Your task to perform on an android device: Open Wikipedia Image 0: 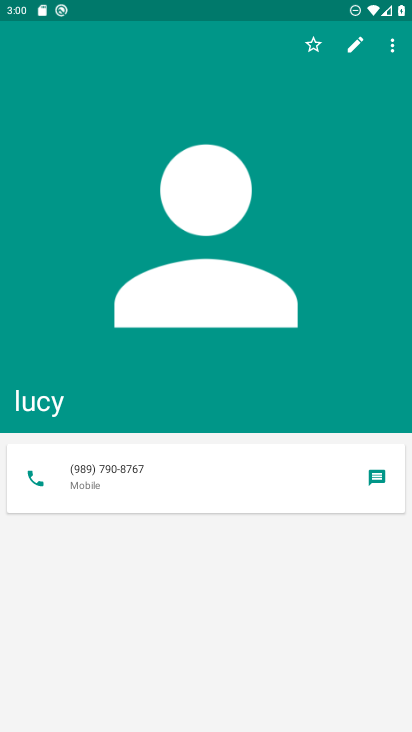
Step 0: press home button
Your task to perform on an android device: Open Wikipedia Image 1: 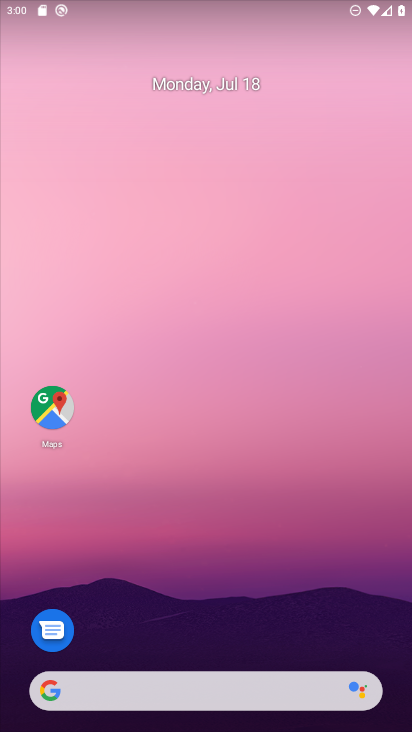
Step 1: drag from (380, 198) to (329, 5)
Your task to perform on an android device: Open Wikipedia Image 2: 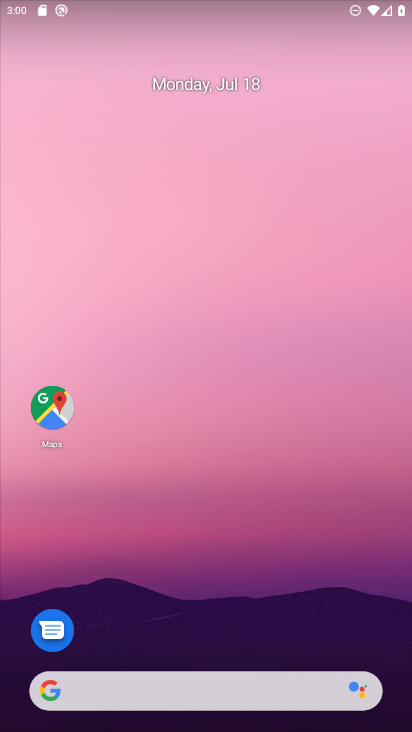
Step 2: drag from (222, 690) to (246, 2)
Your task to perform on an android device: Open Wikipedia Image 3: 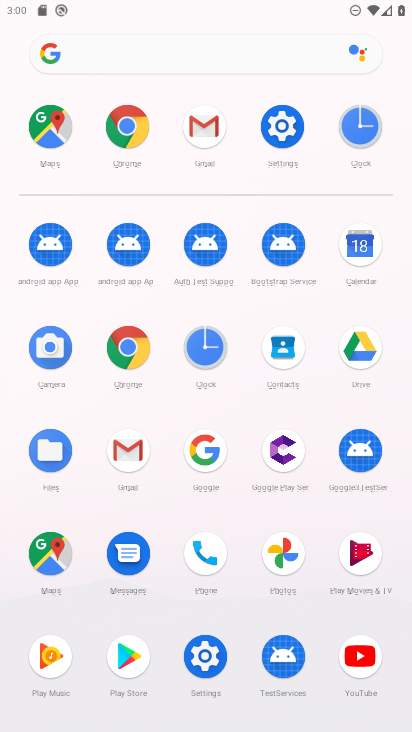
Step 3: click (133, 342)
Your task to perform on an android device: Open Wikipedia Image 4: 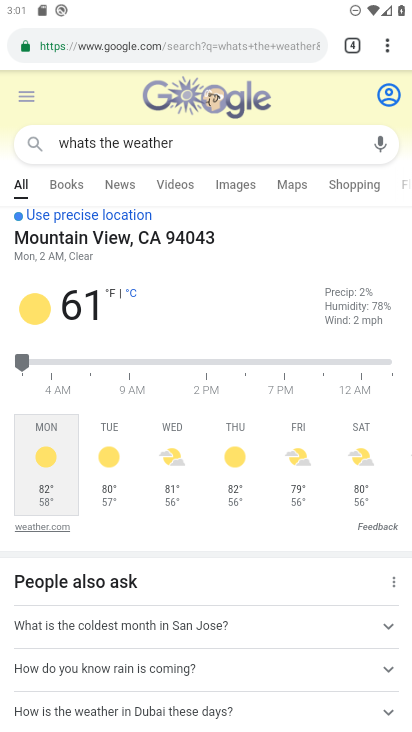
Step 4: click (196, 46)
Your task to perform on an android device: Open Wikipedia Image 5: 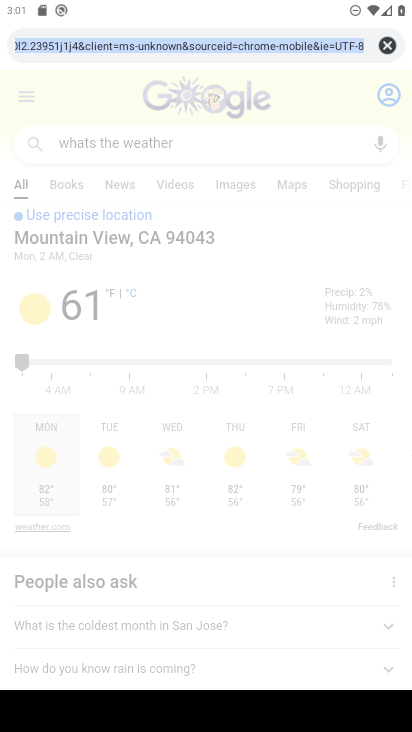
Step 5: type "wikipedia"
Your task to perform on an android device: Open Wikipedia Image 6: 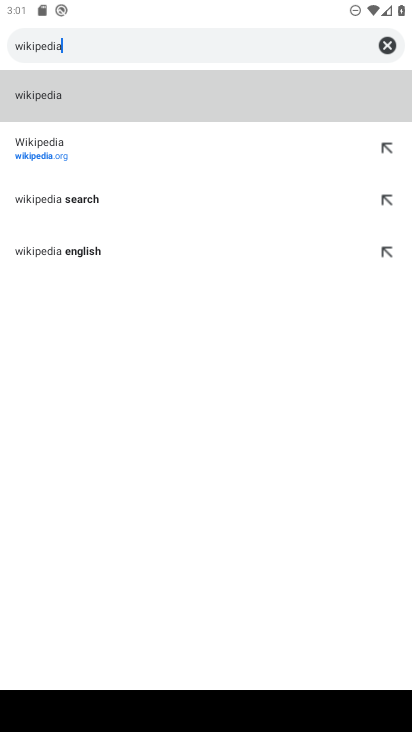
Step 6: click (109, 103)
Your task to perform on an android device: Open Wikipedia Image 7: 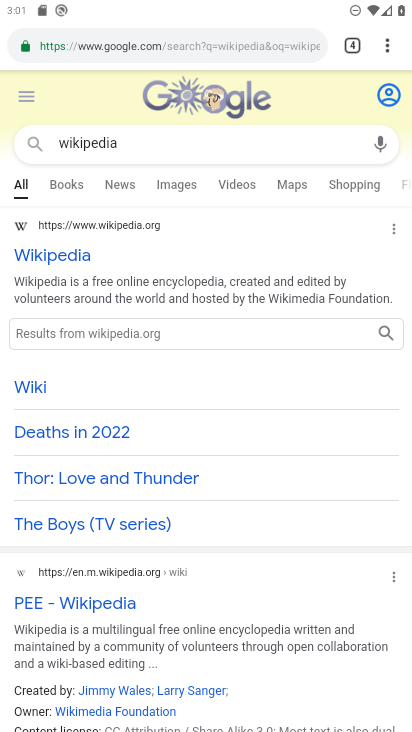
Step 7: task complete